Your task to perform on an android device: change the clock style Image 0: 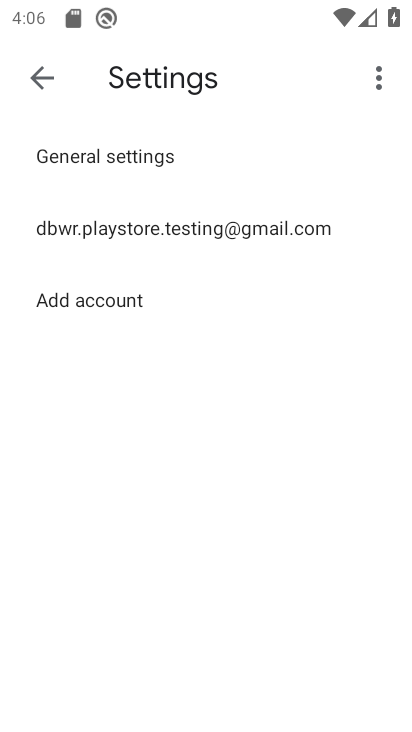
Step 0: press home button
Your task to perform on an android device: change the clock style Image 1: 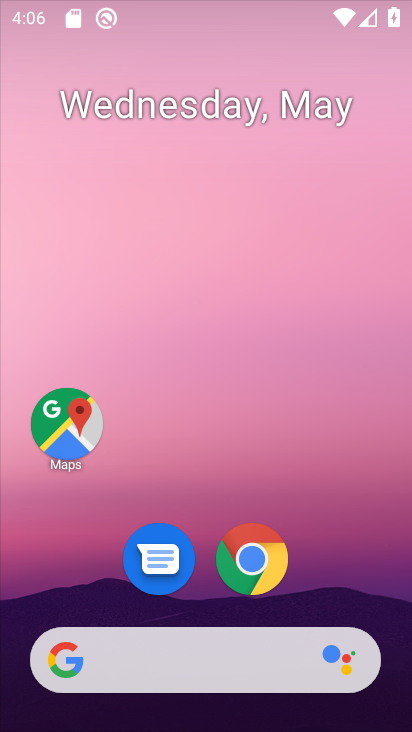
Step 1: drag from (343, 580) to (215, 92)
Your task to perform on an android device: change the clock style Image 2: 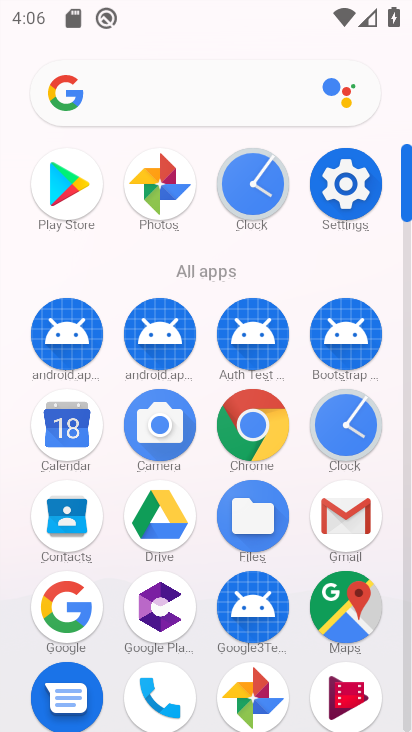
Step 2: click (253, 190)
Your task to perform on an android device: change the clock style Image 3: 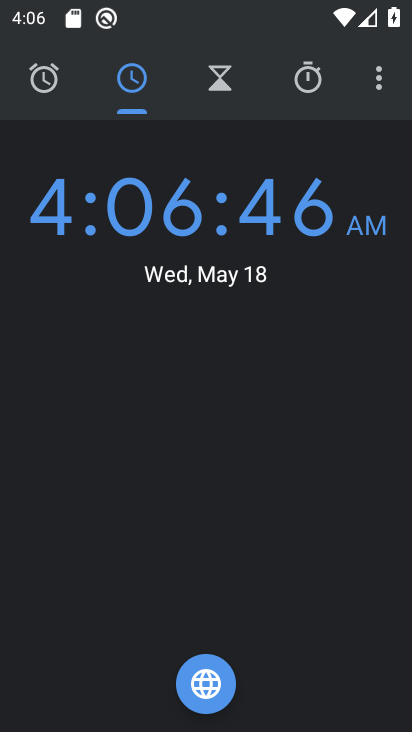
Step 3: click (365, 83)
Your task to perform on an android device: change the clock style Image 4: 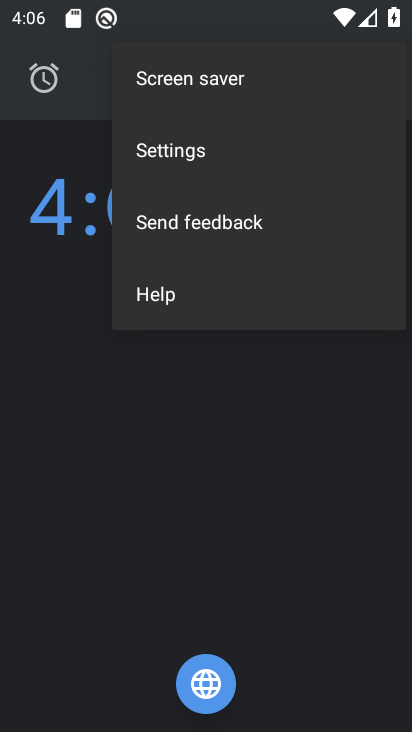
Step 4: click (207, 132)
Your task to perform on an android device: change the clock style Image 5: 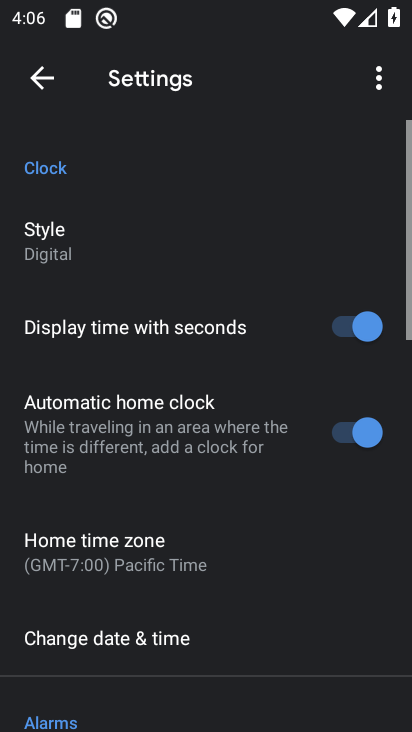
Step 5: click (141, 250)
Your task to perform on an android device: change the clock style Image 6: 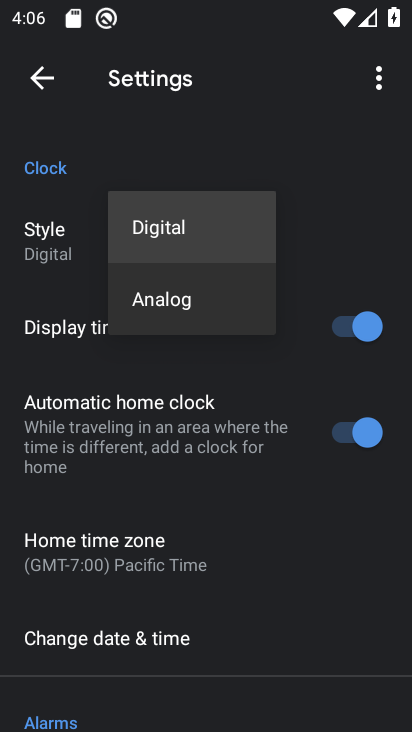
Step 6: click (174, 292)
Your task to perform on an android device: change the clock style Image 7: 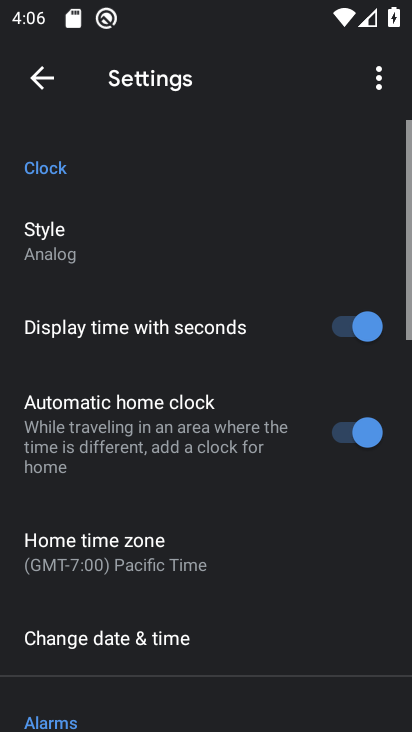
Step 7: task complete